Your task to perform on an android device: What's the weather? Image 0: 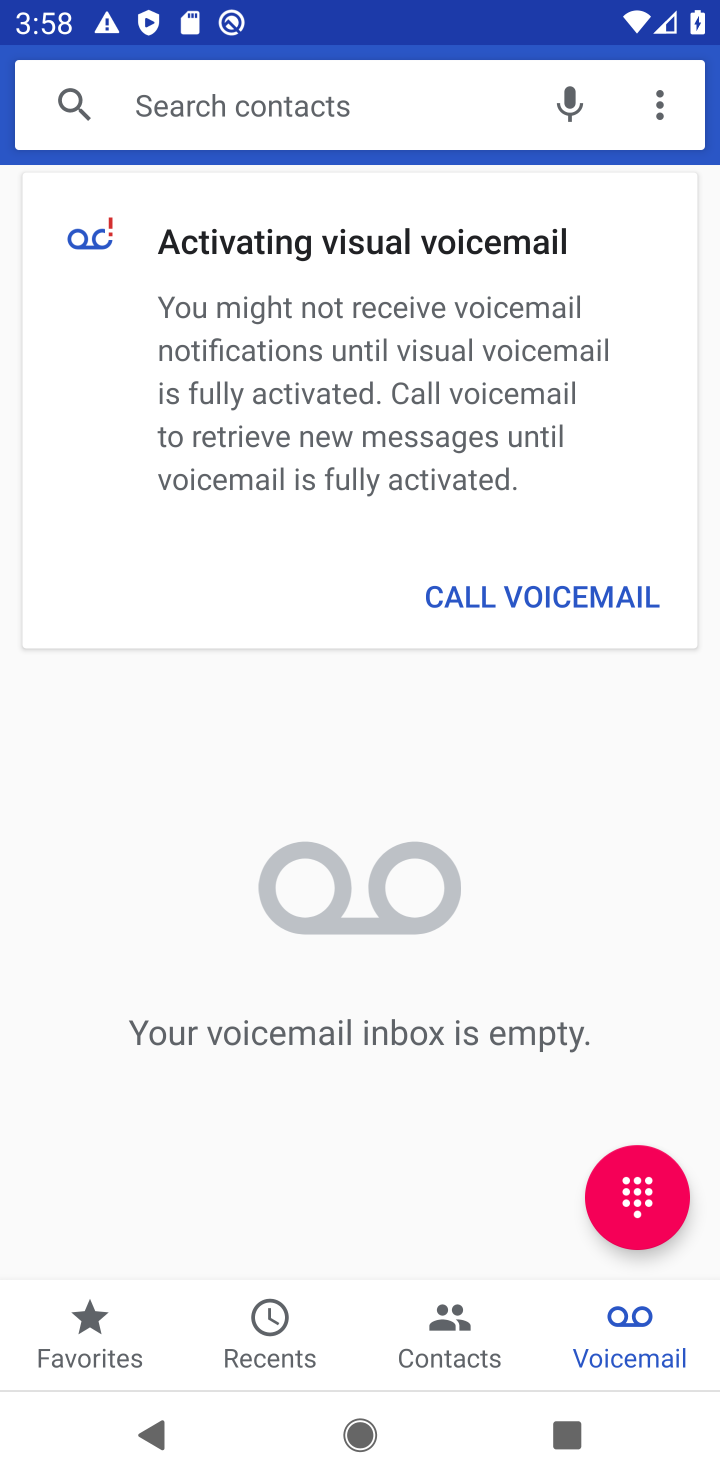
Step 0: click (312, 333)
Your task to perform on an android device: What's the weather? Image 1: 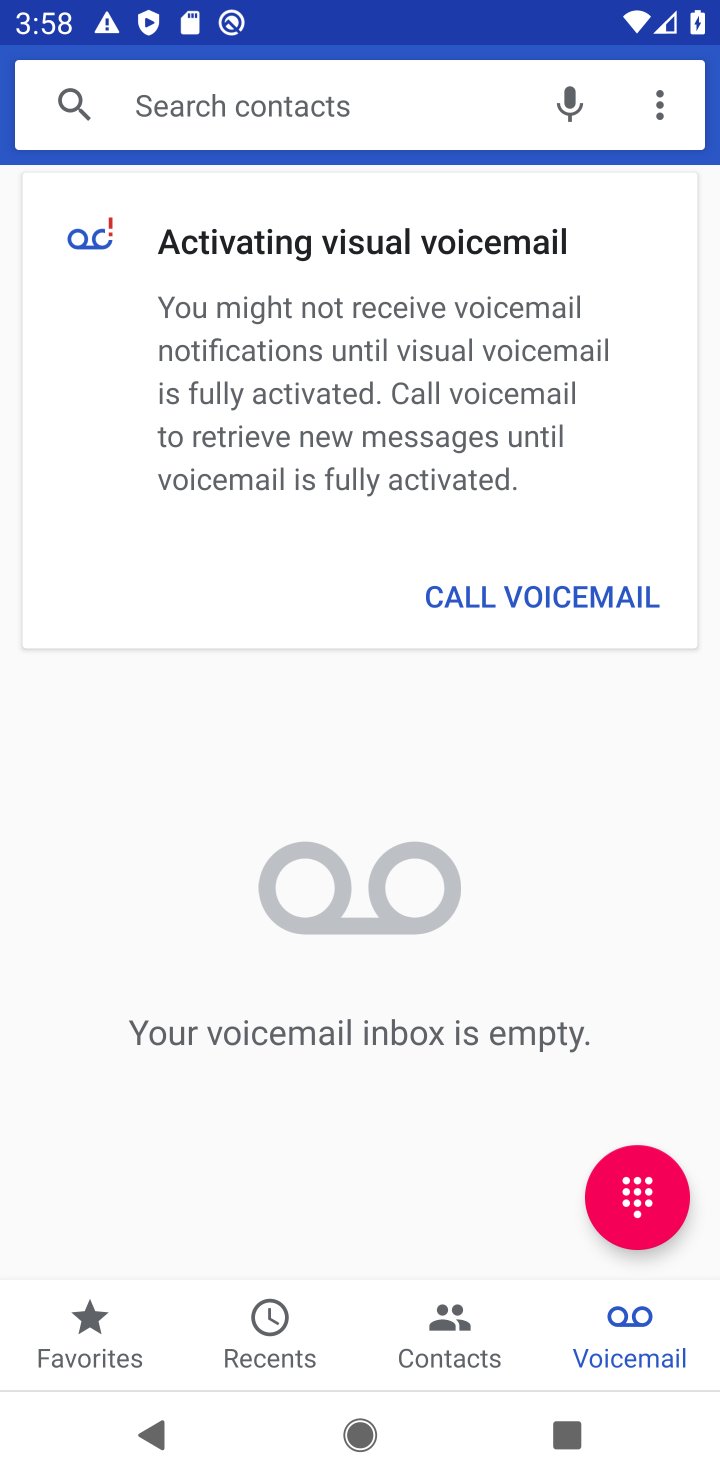
Step 1: press home button
Your task to perform on an android device: What's the weather? Image 2: 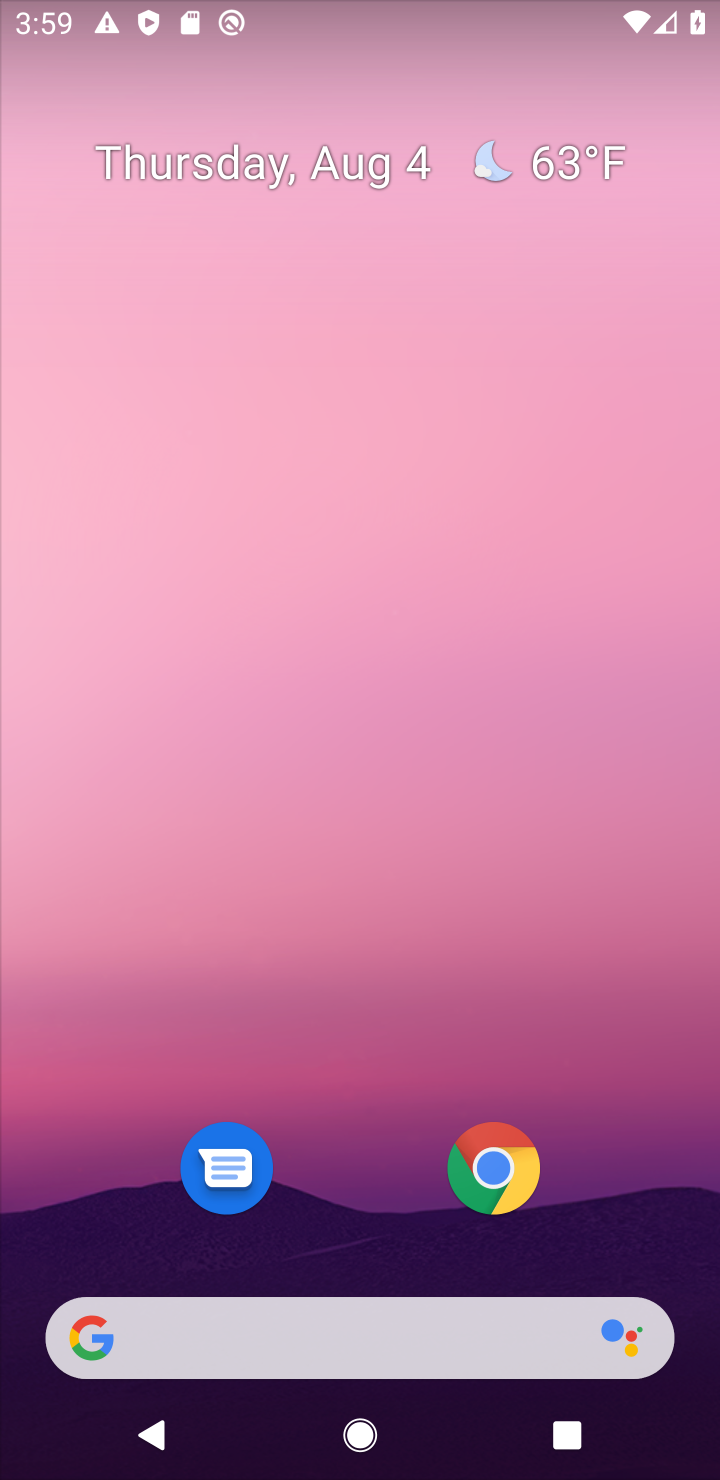
Step 2: click (407, 1315)
Your task to perform on an android device: What's the weather? Image 3: 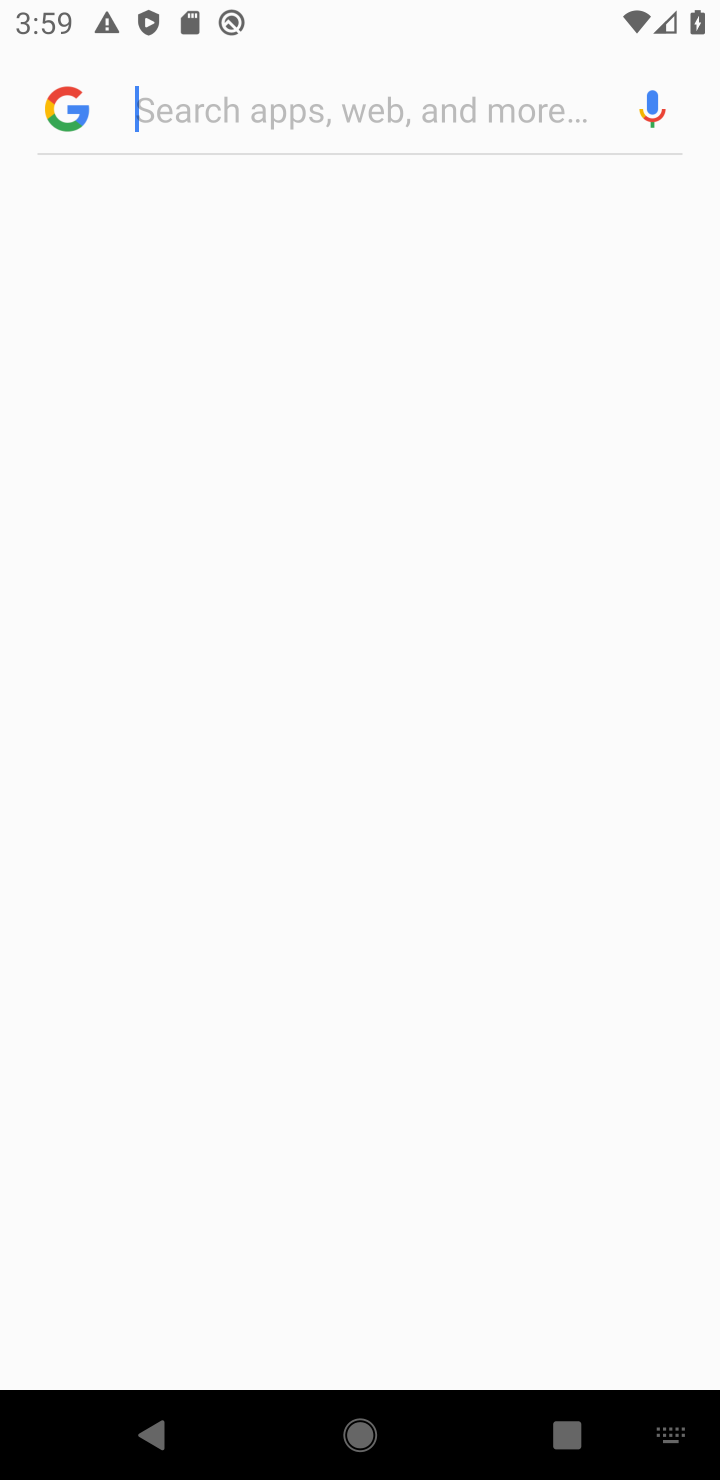
Step 3: task complete